Your task to perform on an android device: set the stopwatch Image 0: 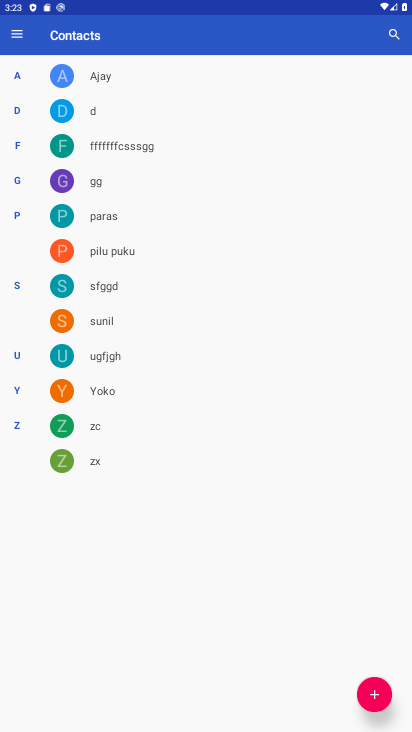
Step 0: press home button
Your task to perform on an android device: set the stopwatch Image 1: 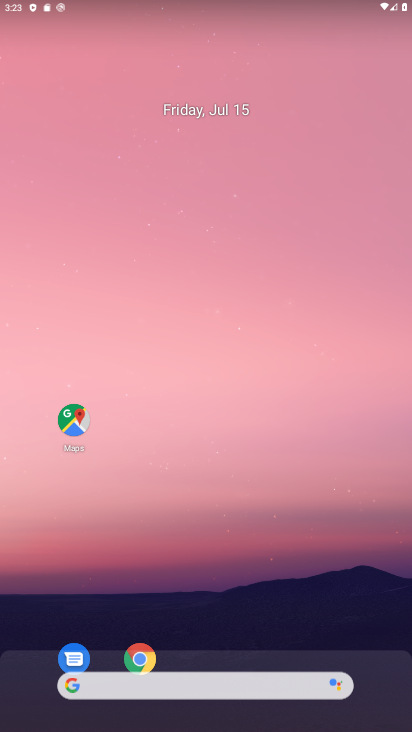
Step 1: drag from (278, 634) to (283, 367)
Your task to perform on an android device: set the stopwatch Image 2: 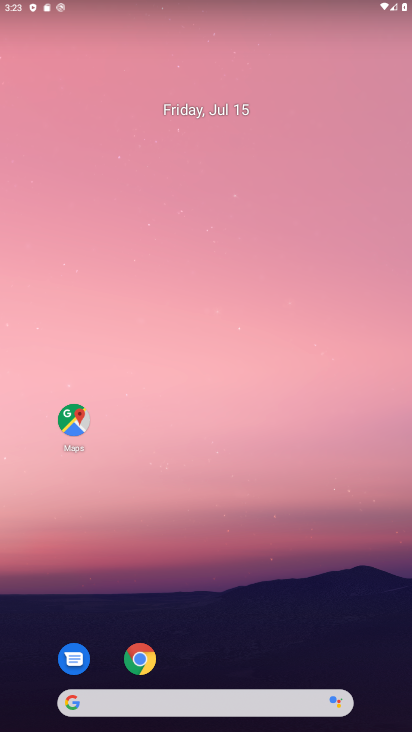
Step 2: drag from (290, 570) to (312, 10)
Your task to perform on an android device: set the stopwatch Image 3: 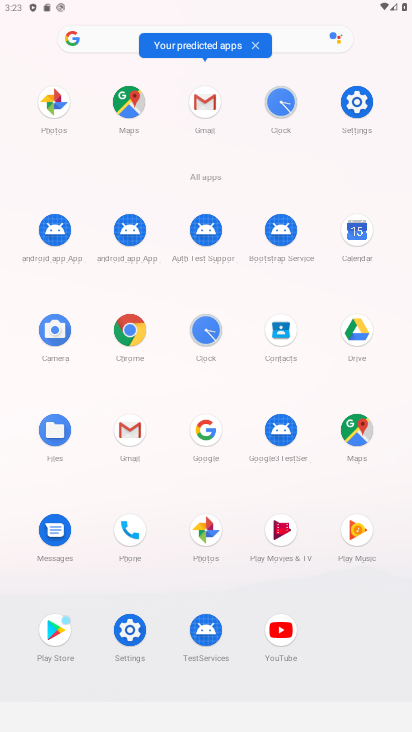
Step 3: click (196, 334)
Your task to perform on an android device: set the stopwatch Image 4: 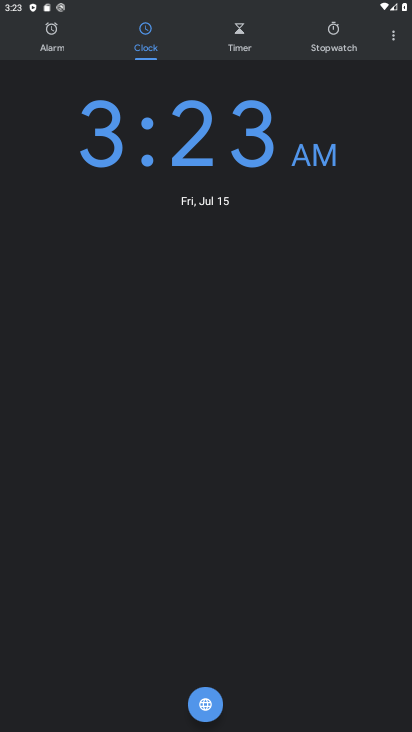
Step 4: click (323, 41)
Your task to perform on an android device: set the stopwatch Image 5: 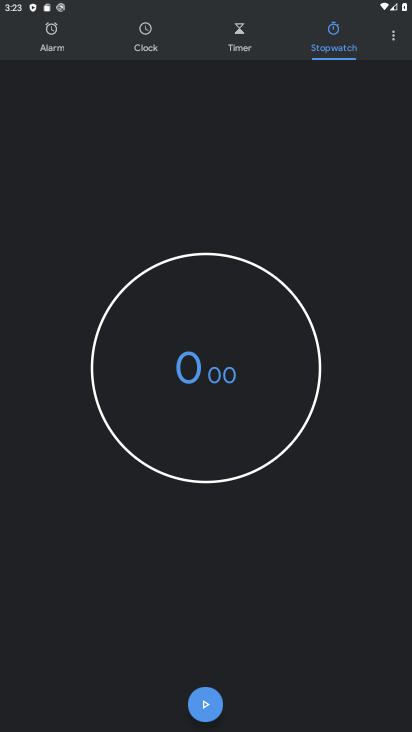
Step 5: click (197, 712)
Your task to perform on an android device: set the stopwatch Image 6: 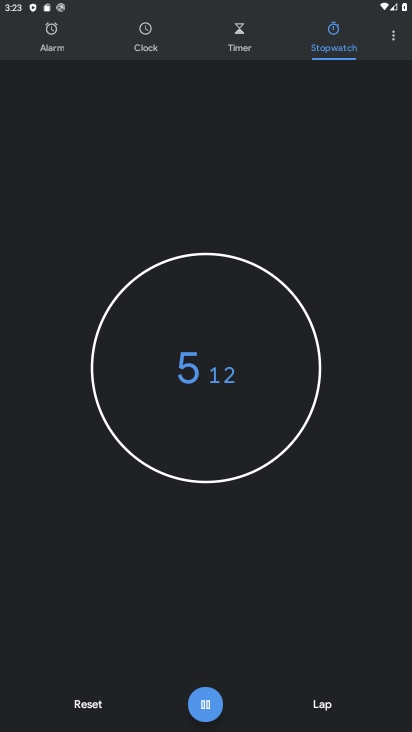
Step 6: task complete